Your task to perform on an android device: find snoozed emails in the gmail app Image 0: 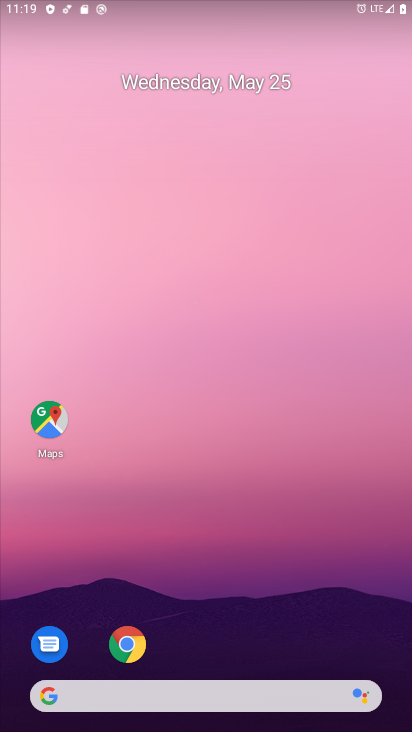
Step 0: drag from (321, 629) to (227, 80)
Your task to perform on an android device: find snoozed emails in the gmail app Image 1: 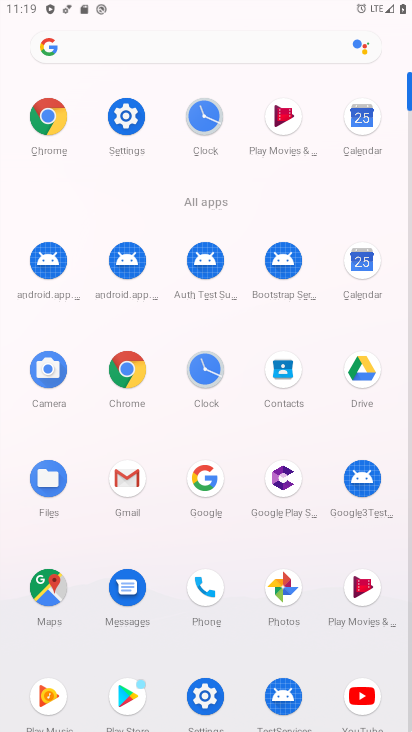
Step 1: click (126, 478)
Your task to perform on an android device: find snoozed emails in the gmail app Image 2: 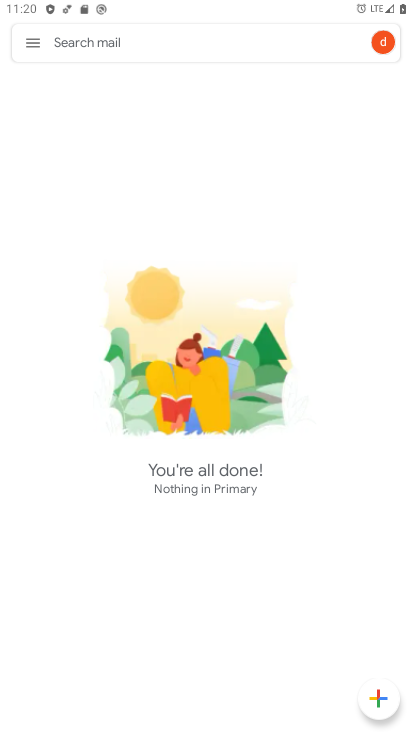
Step 2: click (35, 46)
Your task to perform on an android device: find snoozed emails in the gmail app Image 3: 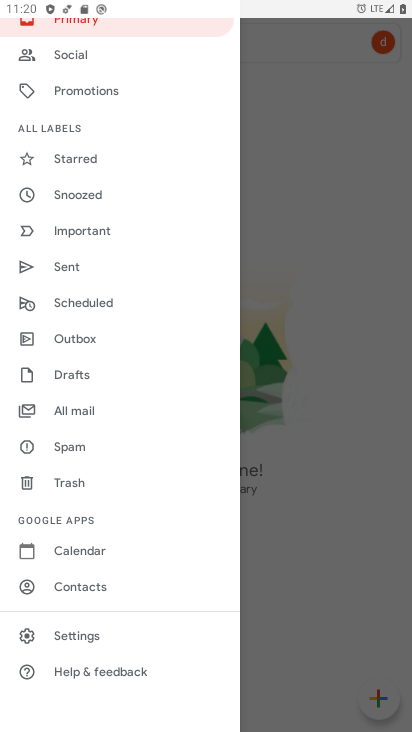
Step 3: click (80, 405)
Your task to perform on an android device: find snoozed emails in the gmail app Image 4: 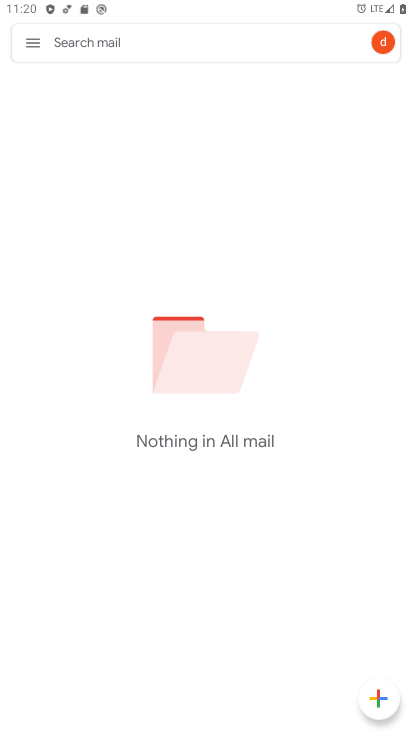
Step 4: click (35, 39)
Your task to perform on an android device: find snoozed emails in the gmail app Image 5: 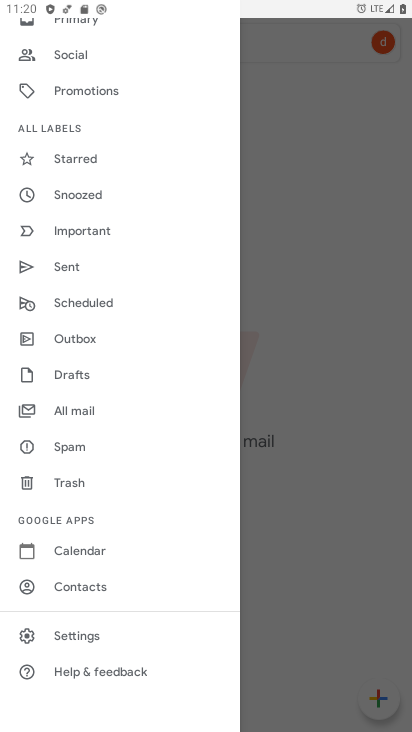
Step 5: click (86, 185)
Your task to perform on an android device: find snoozed emails in the gmail app Image 6: 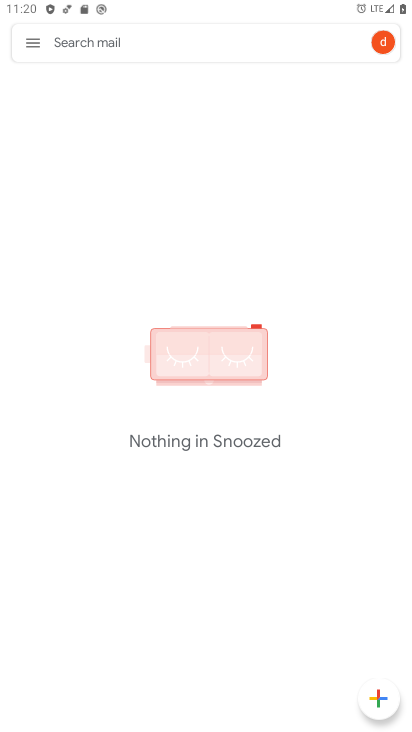
Step 6: task complete